Your task to perform on an android device: Set the phone to "Do not disturb". Image 0: 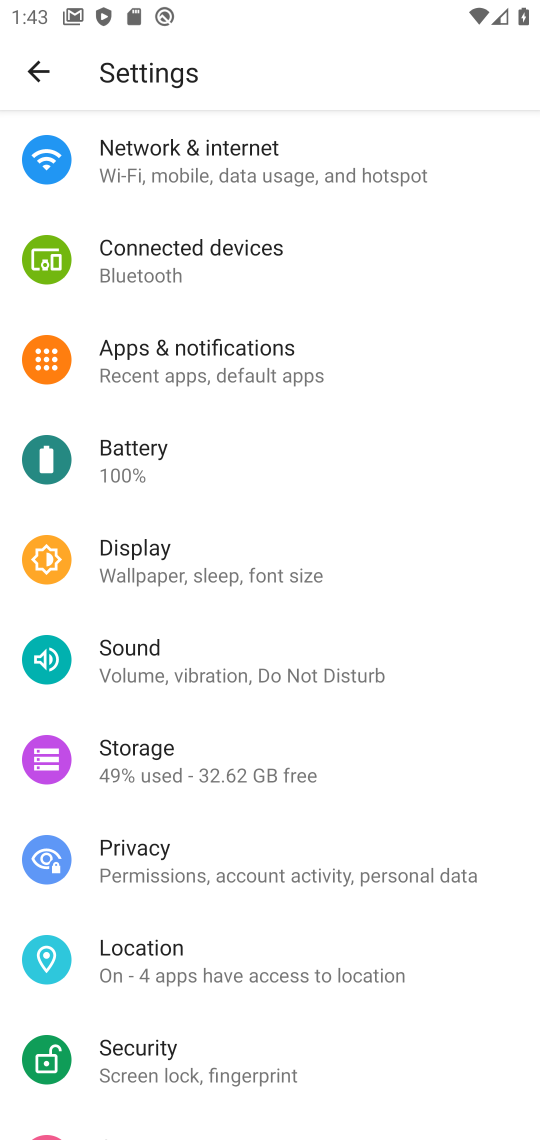
Step 0: press home button
Your task to perform on an android device: Set the phone to "Do not disturb". Image 1: 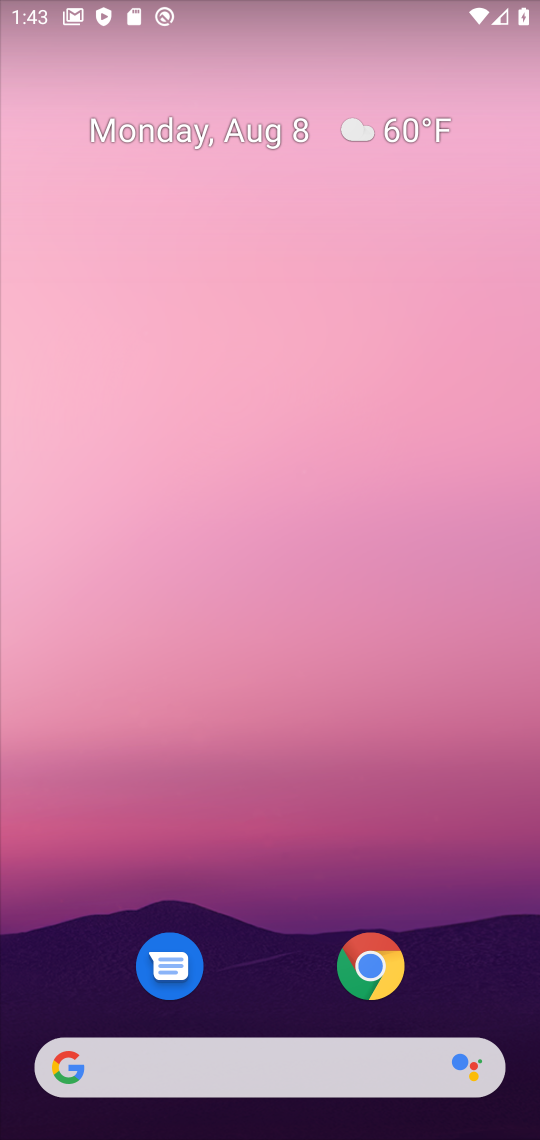
Step 1: drag from (363, 23) to (287, 498)
Your task to perform on an android device: Set the phone to "Do not disturb". Image 2: 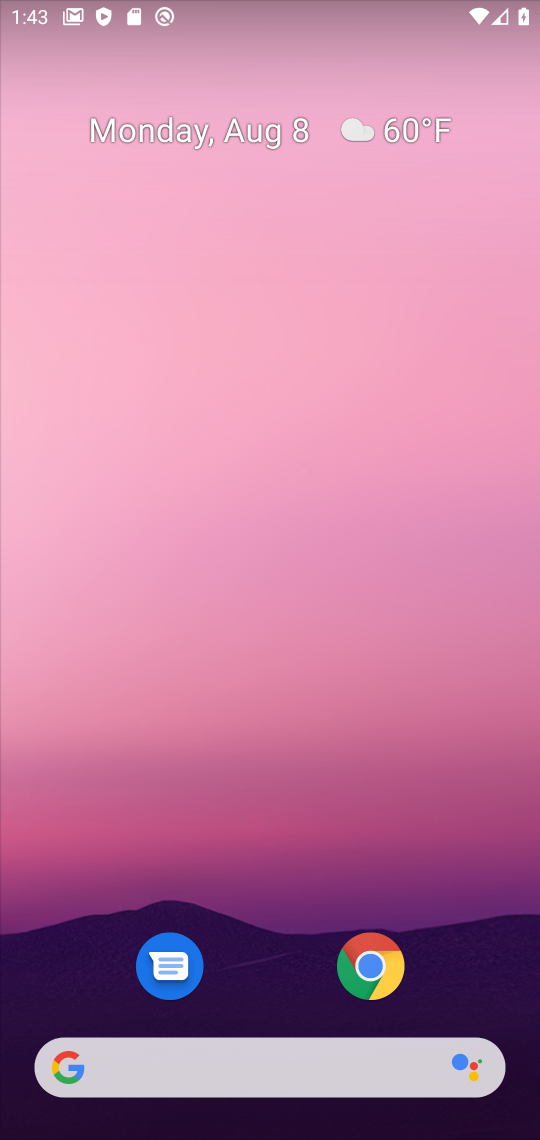
Step 2: drag from (304, 9) to (419, 1094)
Your task to perform on an android device: Set the phone to "Do not disturb". Image 3: 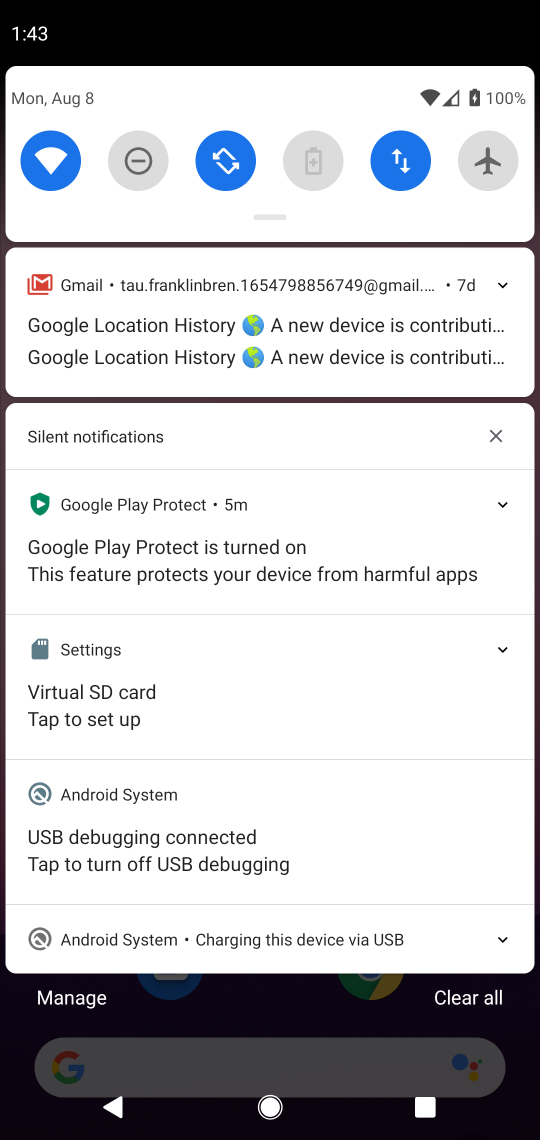
Step 3: click (148, 170)
Your task to perform on an android device: Set the phone to "Do not disturb". Image 4: 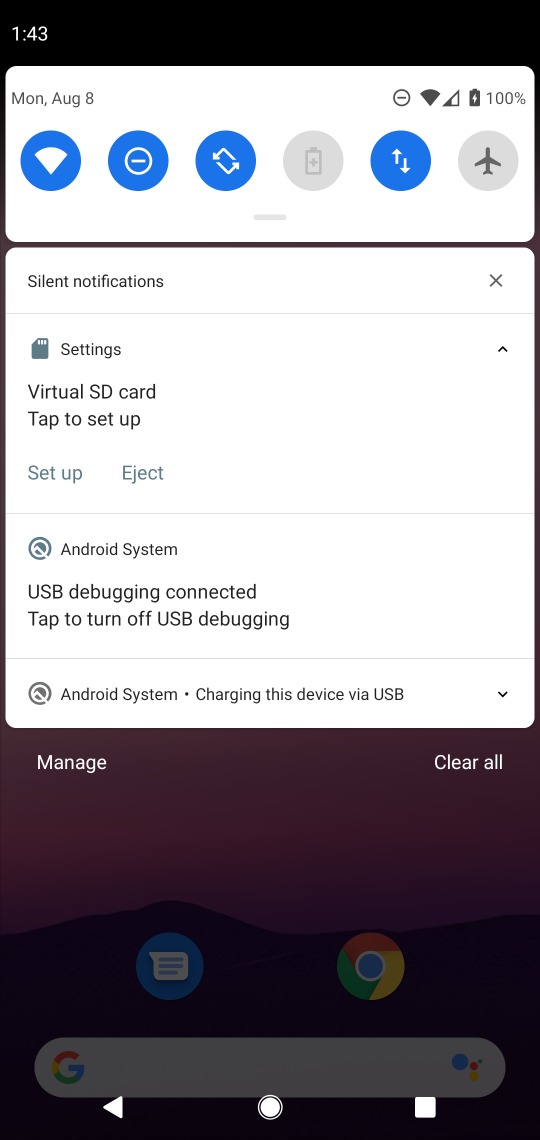
Step 4: task complete